Your task to perform on an android device: Open calendar and show me the first week of next month Image 0: 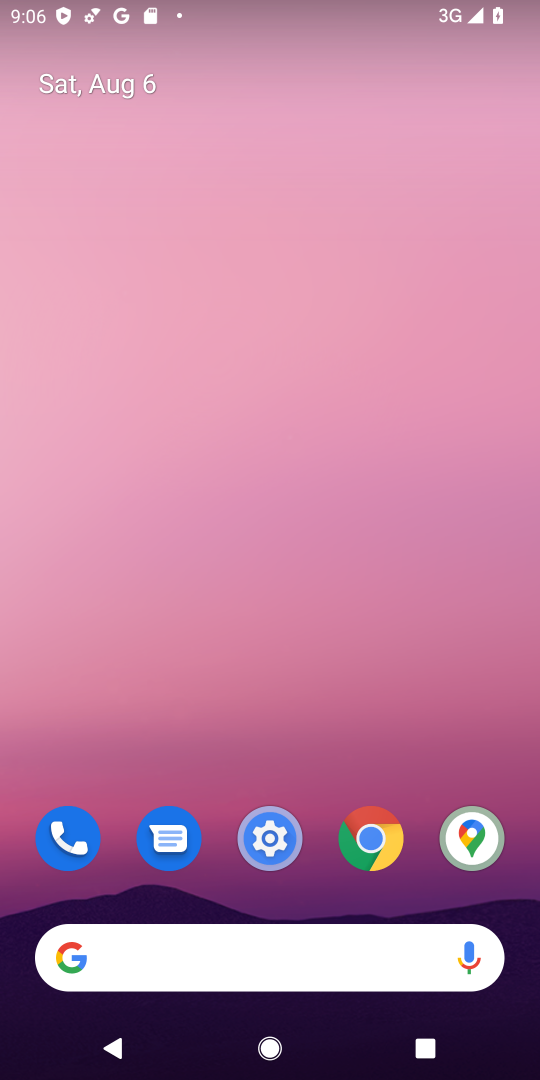
Step 0: drag from (380, 776) to (330, 230)
Your task to perform on an android device: Open calendar and show me the first week of next month Image 1: 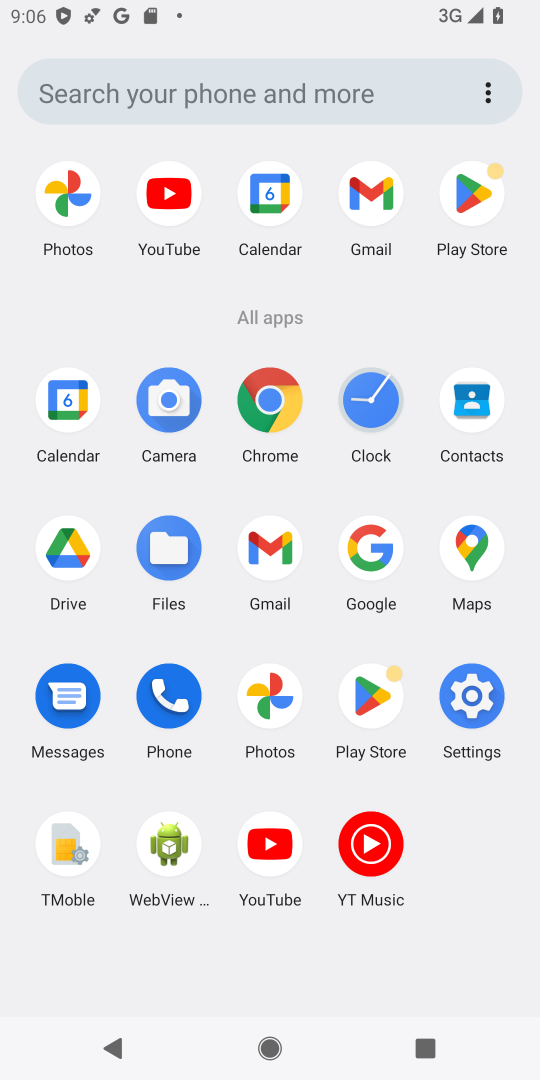
Step 1: click (74, 403)
Your task to perform on an android device: Open calendar and show me the first week of next month Image 2: 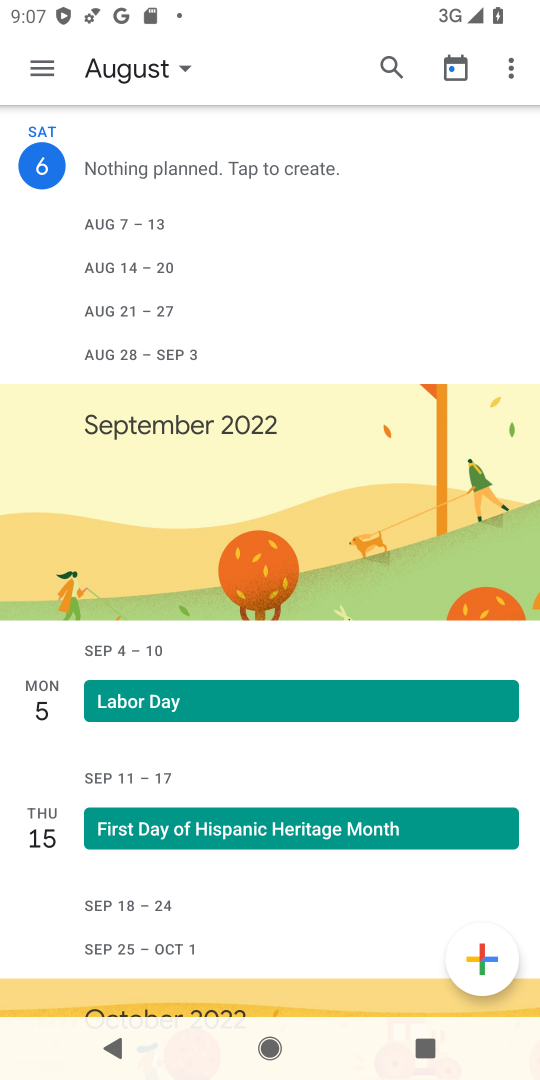
Step 2: click (46, 66)
Your task to perform on an android device: Open calendar and show me the first week of next month Image 3: 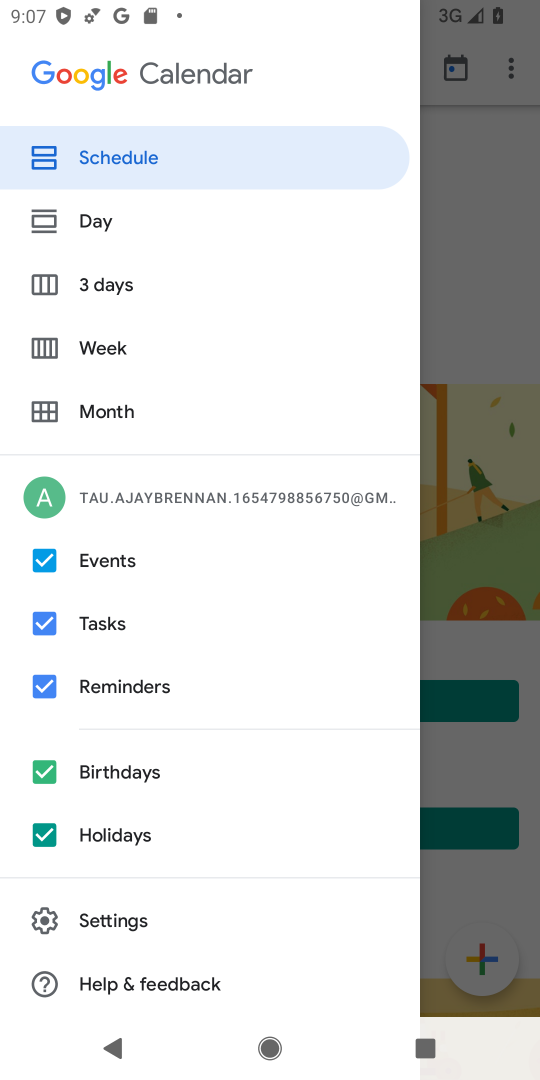
Step 3: click (133, 337)
Your task to perform on an android device: Open calendar and show me the first week of next month Image 4: 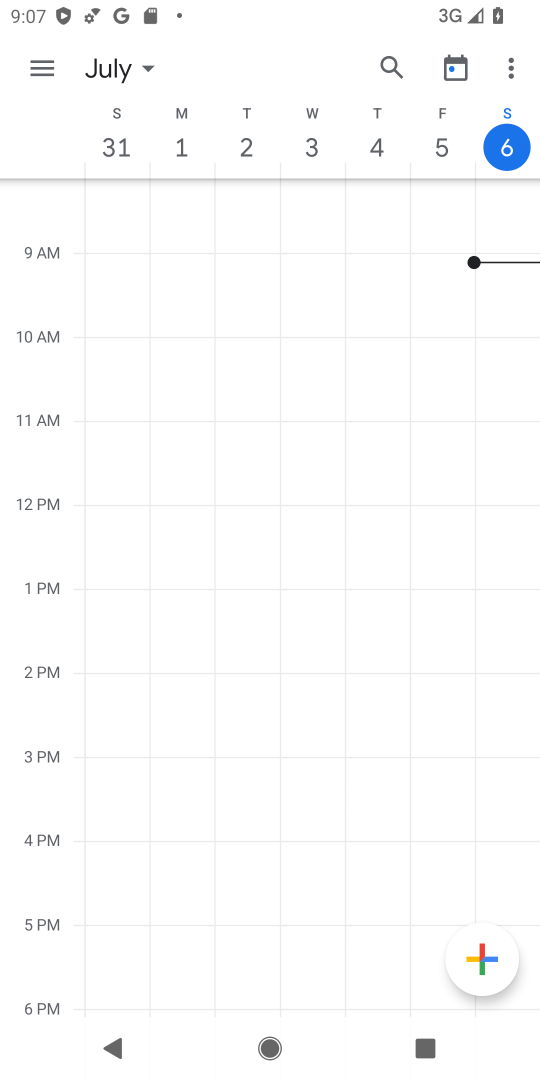
Step 4: click (39, 70)
Your task to perform on an android device: Open calendar and show me the first week of next month Image 5: 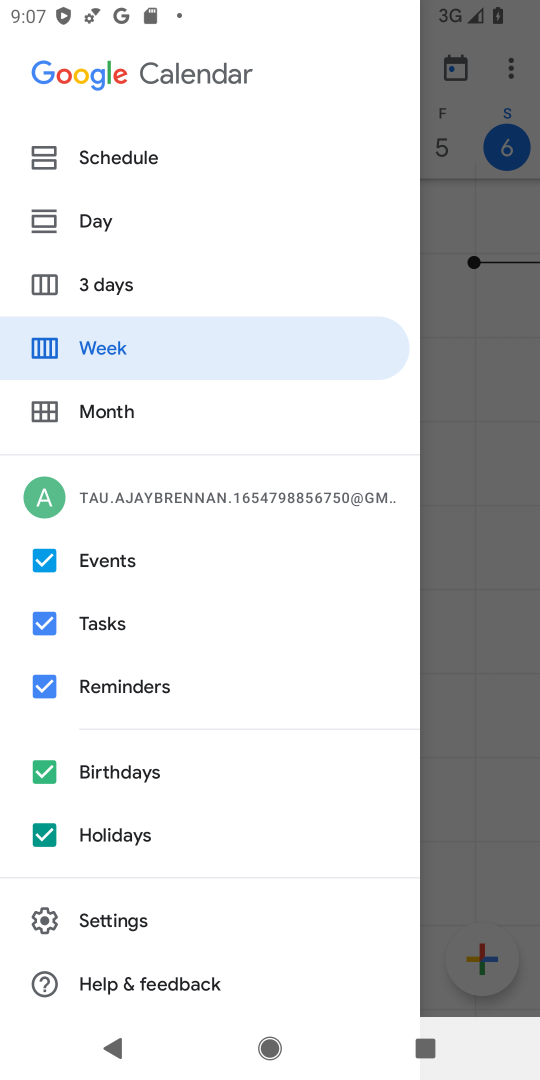
Step 5: click (455, 227)
Your task to perform on an android device: Open calendar and show me the first week of next month Image 6: 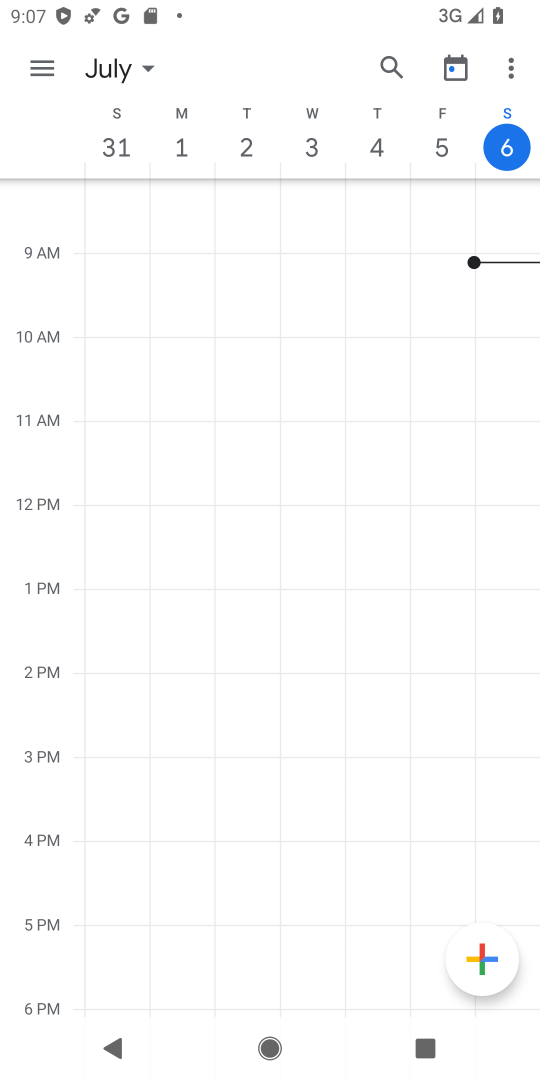
Step 6: click (155, 62)
Your task to perform on an android device: Open calendar and show me the first week of next month Image 7: 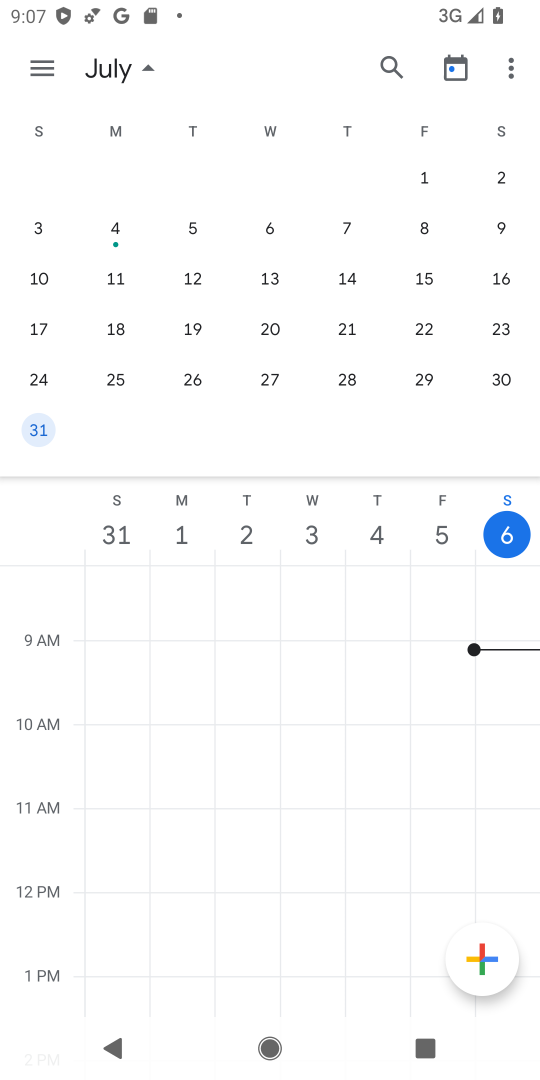
Step 7: drag from (490, 275) to (2, 300)
Your task to perform on an android device: Open calendar and show me the first week of next month Image 8: 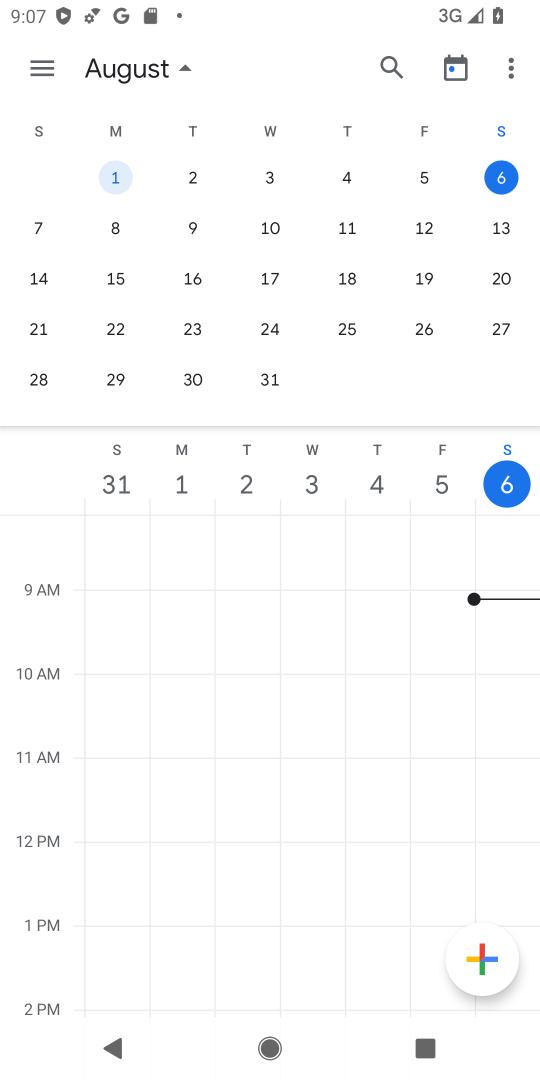
Step 8: drag from (500, 265) to (21, 250)
Your task to perform on an android device: Open calendar and show me the first week of next month Image 9: 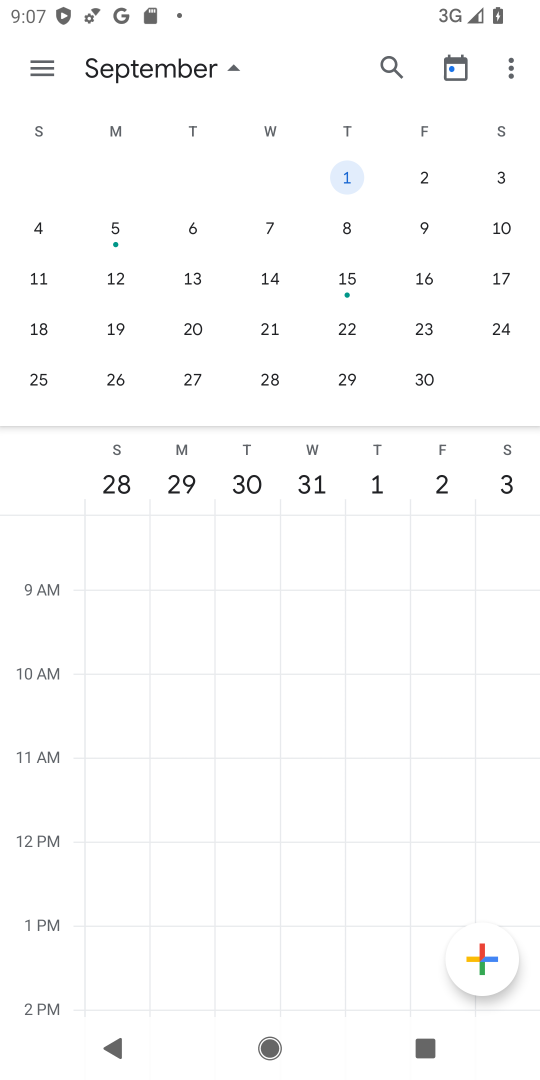
Step 9: click (353, 215)
Your task to perform on an android device: Open calendar and show me the first week of next month Image 10: 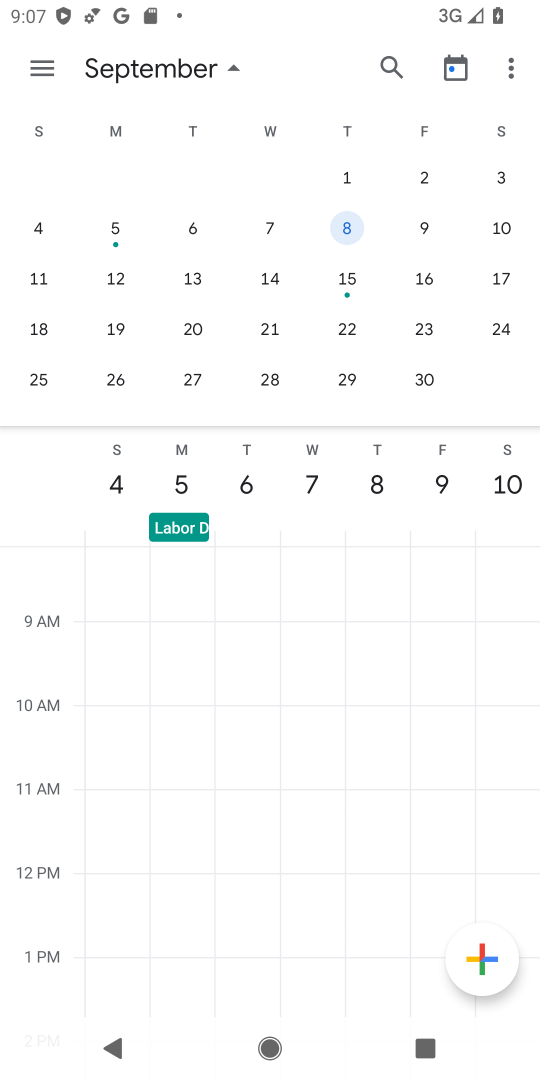
Step 10: task complete